Your task to perform on an android device: Open Google Chrome and click the shortcut for Amazon.com Image 0: 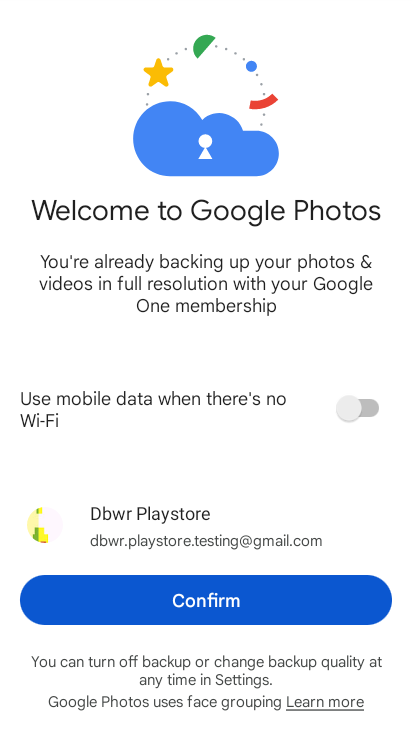
Step 0: drag from (262, 313) to (259, 265)
Your task to perform on an android device: Open Google Chrome and click the shortcut for Amazon.com Image 1: 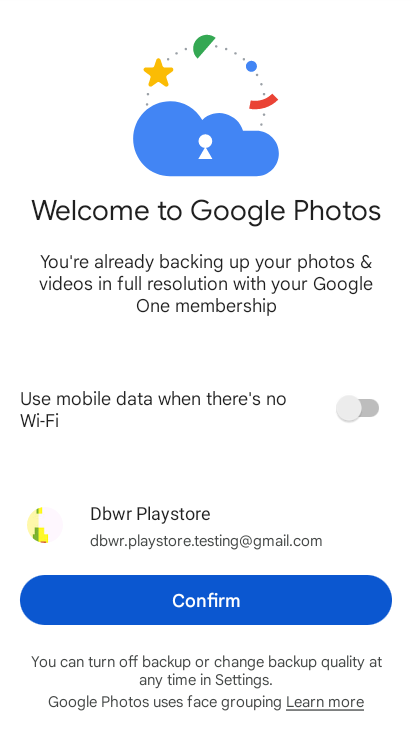
Step 1: press home button
Your task to perform on an android device: Open Google Chrome and click the shortcut for Amazon.com Image 2: 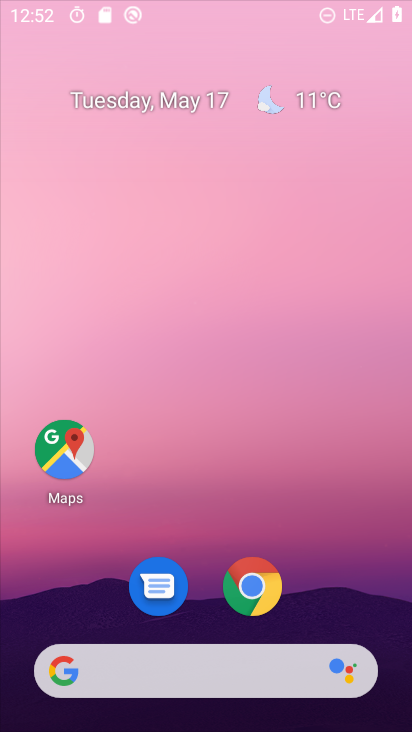
Step 2: drag from (292, 532) to (273, 186)
Your task to perform on an android device: Open Google Chrome and click the shortcut for Amazon.com Image 3: 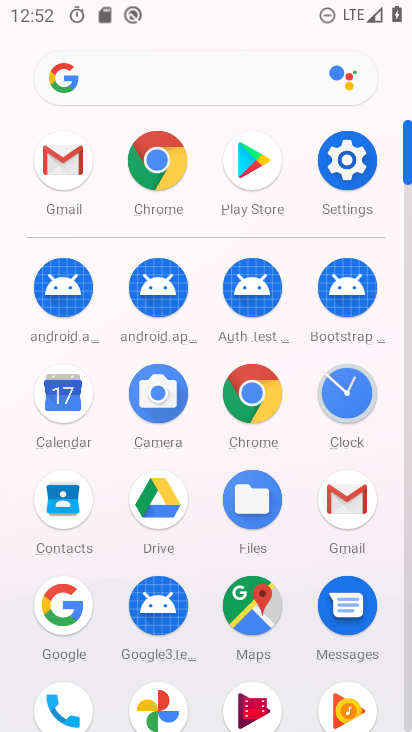
Step 3: drag from (213, 570) to (237, 242)
Your task to perform on an android device: Open Google Chrome and click the shortcut for Amazon.com Image 4: 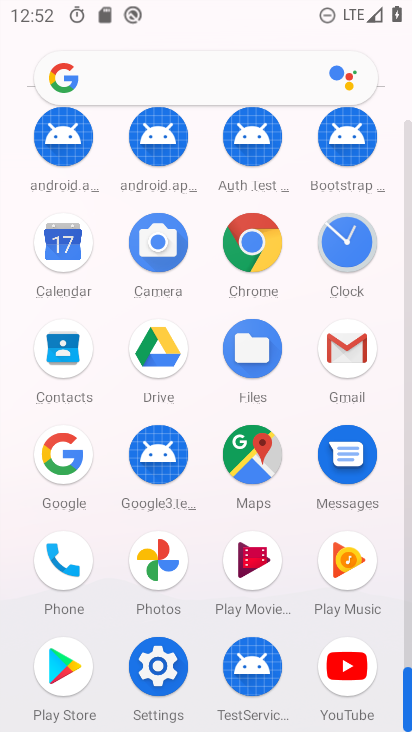
Step 4: click (242, 243)
Your task to perform on an android device: Open Google Chrome and click the shortcut for Amazon.com Image 5: 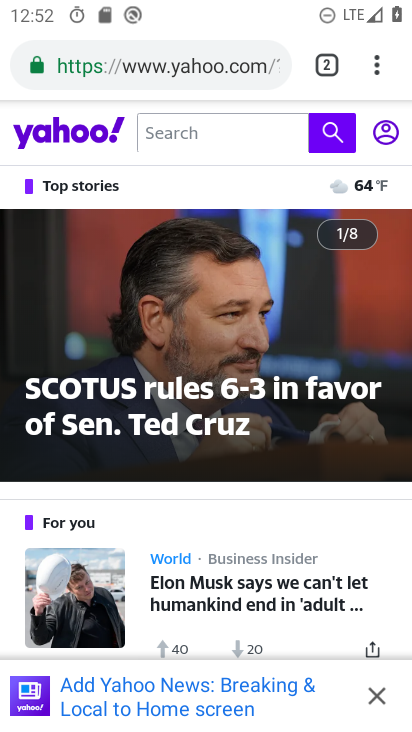
Step 5: drag from (282, 616) to (285, 210)
Your task to perform on an android device: Open Google Chrome and click the shortcut for Amazon.com Image 6: 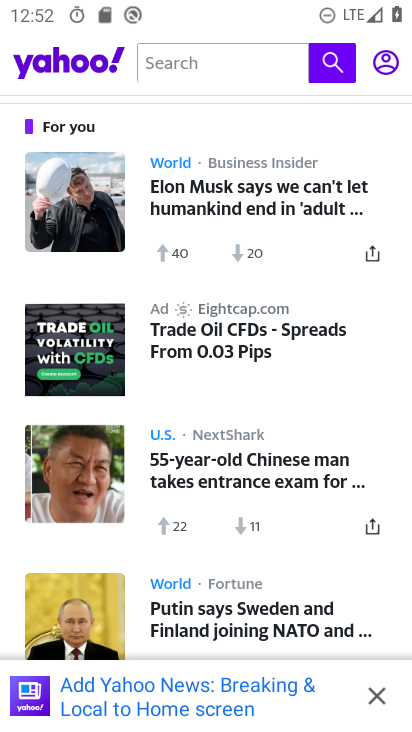
Step 6: drag from (261, 581) to (268, 242)
Your task to perform on an android device: Open Google Chrome and click the shortcut for Amazon.com Image 7: 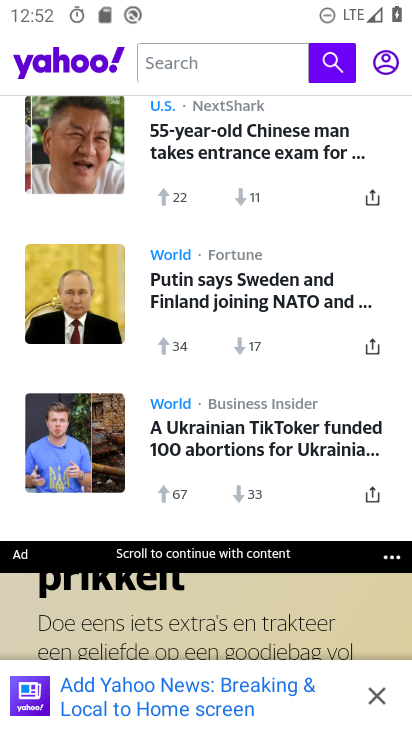
Step 7: drag from (294, 151) to (388, 731)
Your task to perform on an android device: Open Google Chrome and click the shortcut for Amazon.com Image 8: 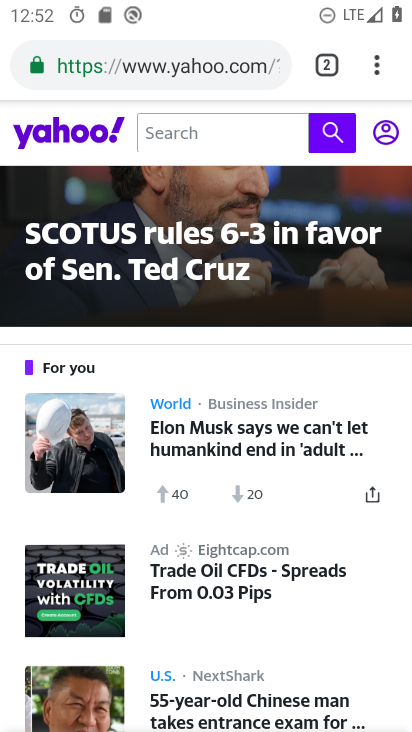
Step 8: click (329, 63)
Your task to perform on an android device: Open Google Chrome and click the shortcut for Amazon.com Image 9: 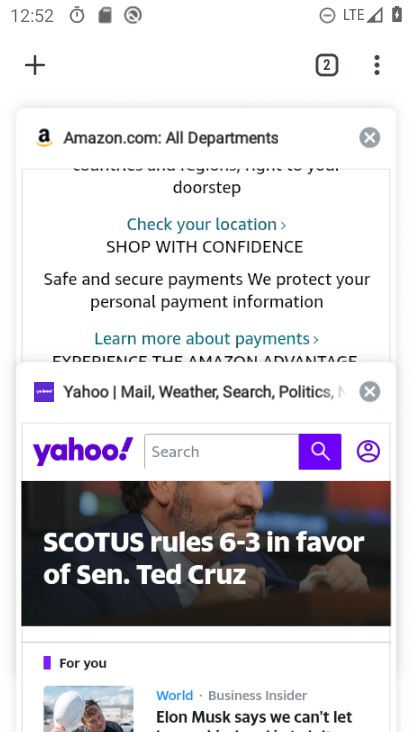
Step 9: click (43, 65)
Your task to perform on an android device: Open Google Chrome and click the shortcut for Amazon.com Image 10: 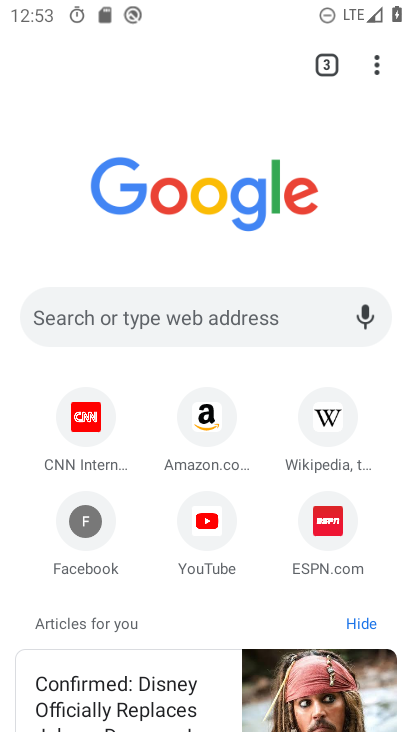
Step 10: click (208, 429)
Your task to perform on an android device: Open Google Chrome and click the shortcut for Amazon.com Image 11: 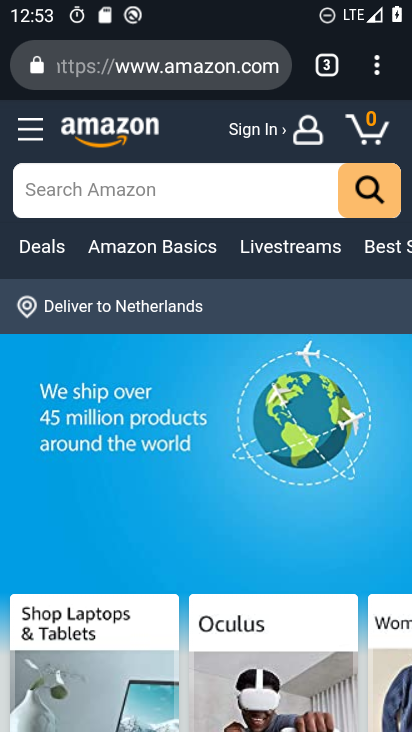
Step 11: task complete